Your task to perform on an android device: Add energizer triple a to the cart on walmart.com, then select checkout. Image 0: 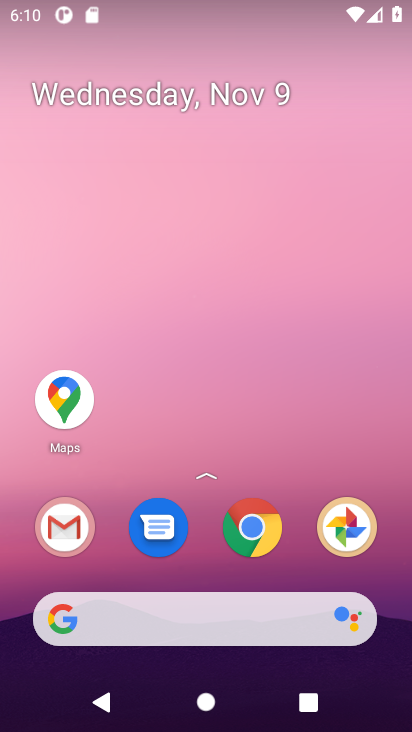
Step 0: drag from (220, 455) to (231, 46)
Your task to perform on an android device: Add energizer triple a to the cart on walmart.com, then select checkout. Image 1: 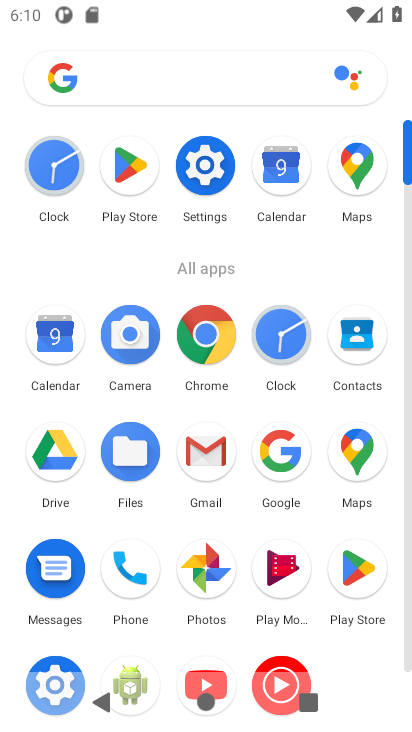
Step 1: click (200, 324)
Your task to perform on an android device: Add energizer triple a to the cart on walmart.com, then select checkout. Image 2: 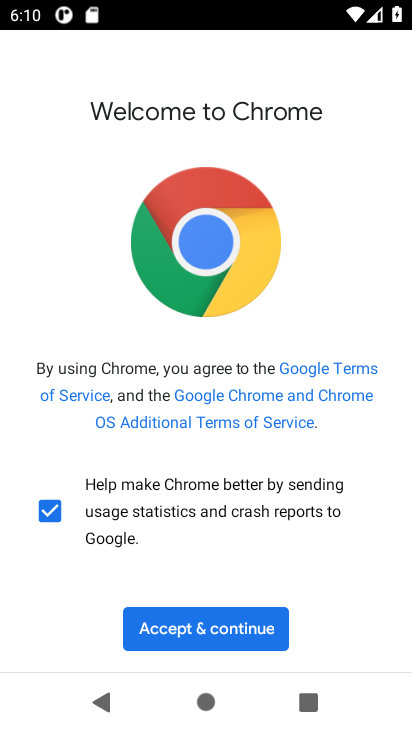
Step 2: click (220, 626)
Your task to perform on an android device: Add energizer triple a to the cart on walmart.com, then select checkout. Image 3: 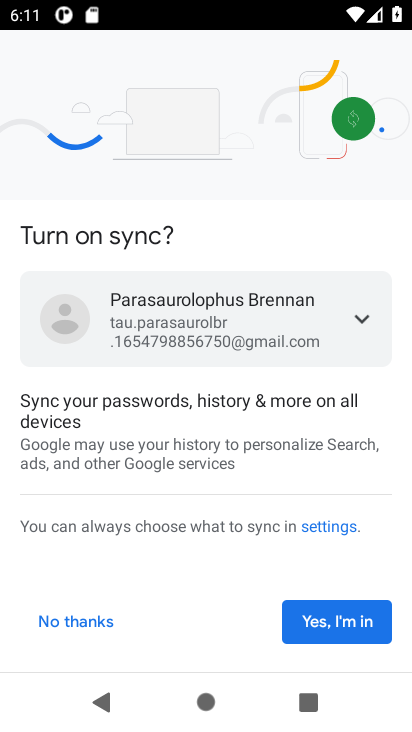
Step 3: click (346, 624)
Your task to perform on an android device: Add energizer triple a to the cart on walmart.com, then select checkout. Image 4: 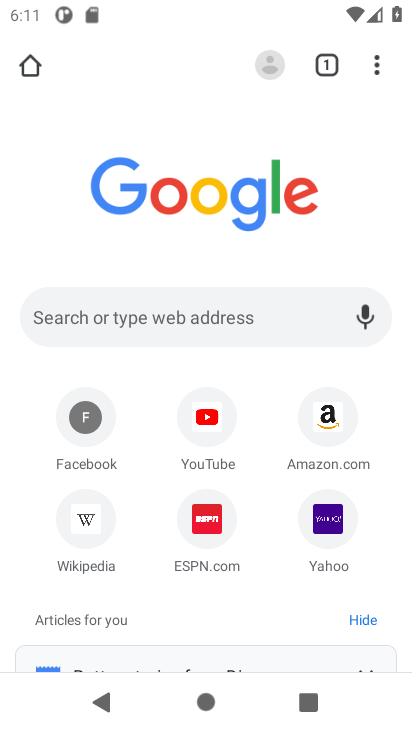
Step 4: click (122, 317)
Your task to perform on an android device: Add energizer triple a to the cart on walmart.com, then select checkout. Image 5: 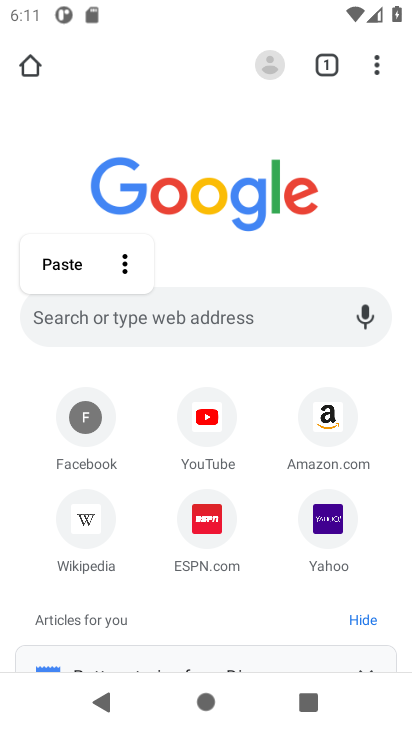
Step 5: type "walmart"
Your task to perform on an android device: Add energizer triple a to the cart on walmart.com, then select checkout. Image 6: 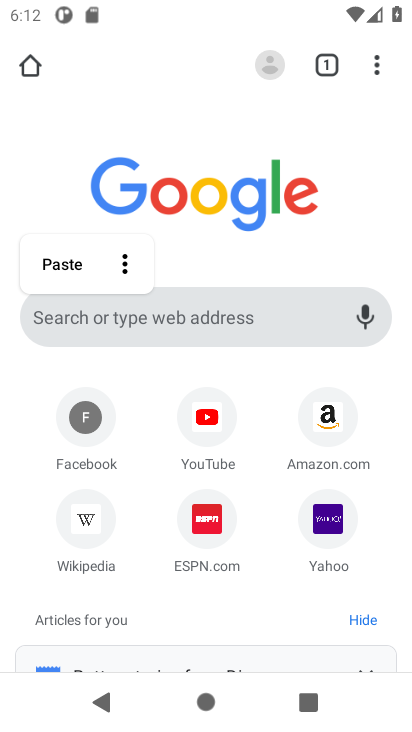
Step 6: click (105, 317)
Your task to perform on an android device: Add energizer triple a to the cart on walmart.com, then select checkout. Image 7: 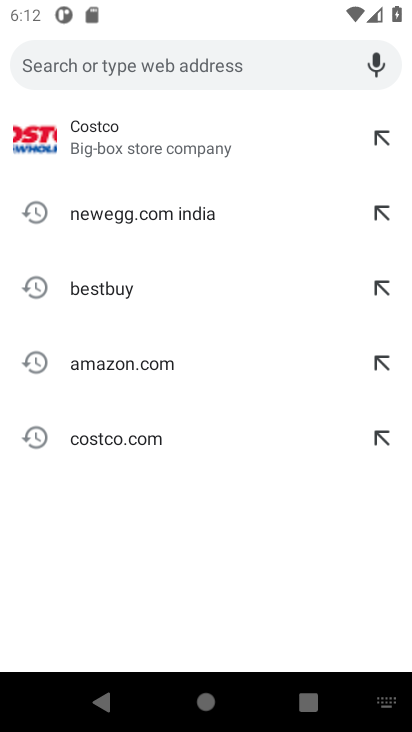
Step 7: type "walmart"
Your task to perform on an android device: Add energizer triple a to the cart on walmart.com, then select checkout. Image 8: 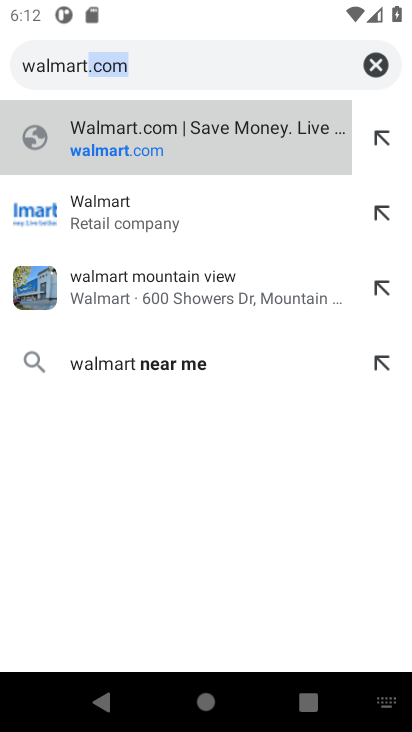
Step 8: click (108, 156)
Your task to perform on an android device: Add energizer triple a to the cart on walmart.com, then select checkout. Image 9: 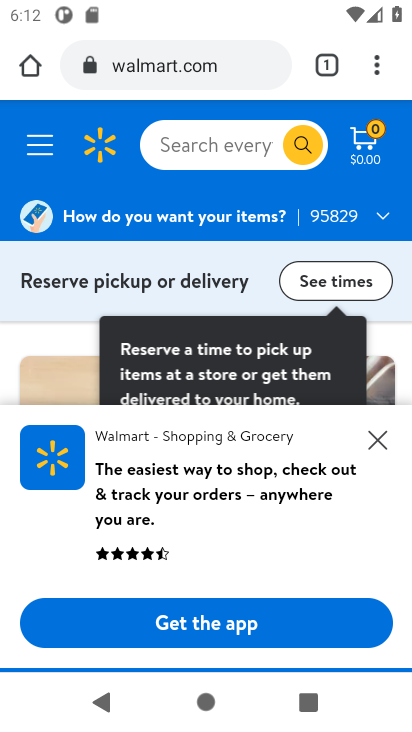
Step 9: click (374, 437)
Your task to perform on an android device: Add energizer triple a to the cart on walmart.com, then select checkout. Image 10: 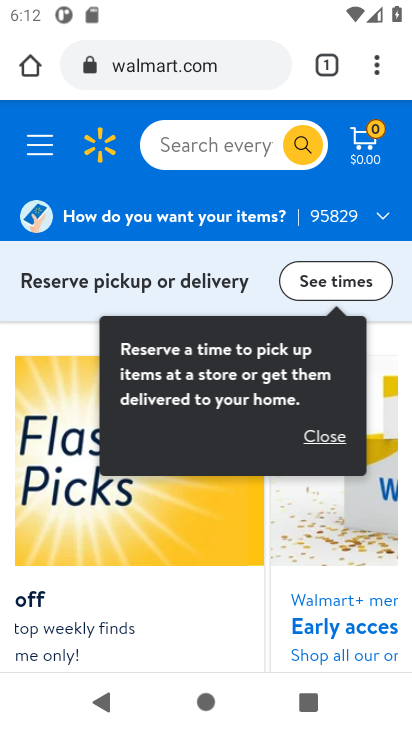
Step 10: click (197, 142)
Your task to perform on an android device: Add energizer triple a to the cart on walmart.com, then select checkout. Image 11: 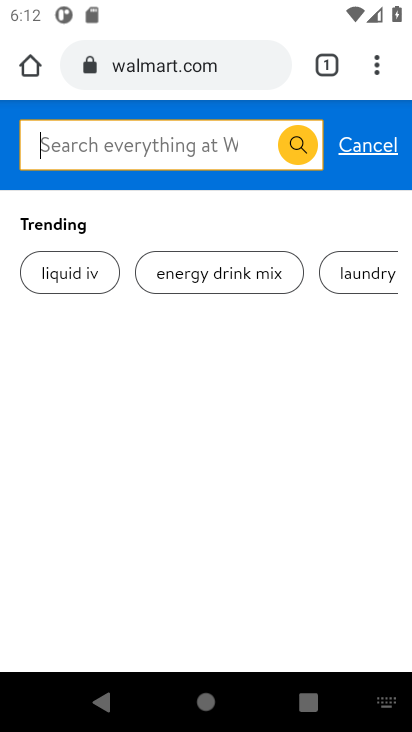
Step 11: type "energizer triple a"
Your task to perform on an android device: Add energizer triple a to the cart on walmart.com, then select checkout. Image 12: 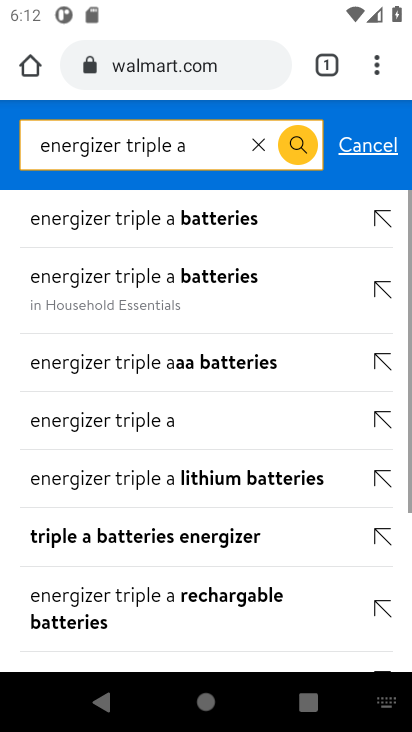
Step 12: click (134, 271)
Your task to perform on an android device: Add energizer triple a to the cart on walmart.com, then select checkout. Image 13: 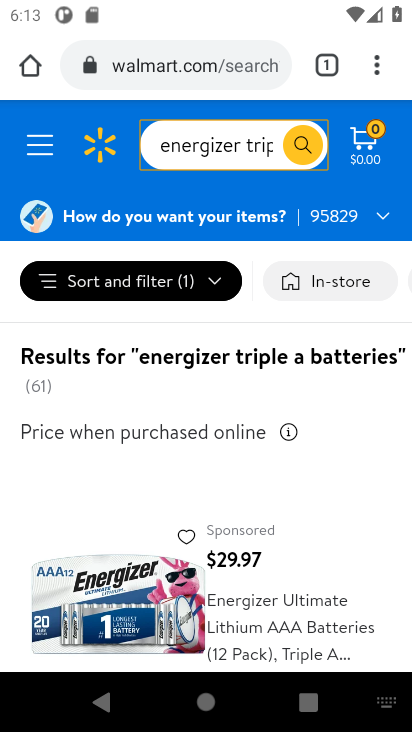
Step 13: click (249, 605)
Your task to perform on an android device: Add energizer triple a to the cart on walmart.com, then select checkout. Image 14: 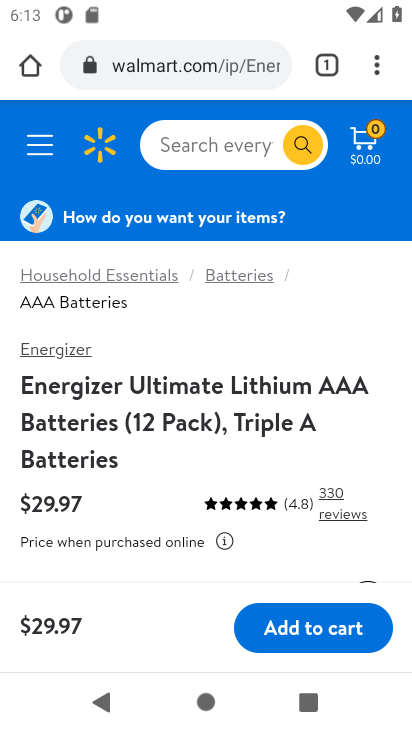
Step 14: click (314, 622)
Your task to perform on an android device: Add energizer triple a to the cart on walmart.com, then select checkout. Image 15: 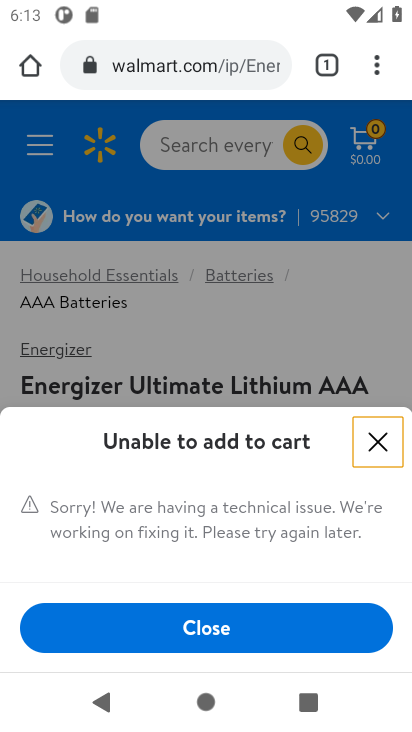
Step 15: click (216, 636)
Your task to perform on an android device: Add energizer triple a to the cart on walmart.com, then select checkout. Image 16: 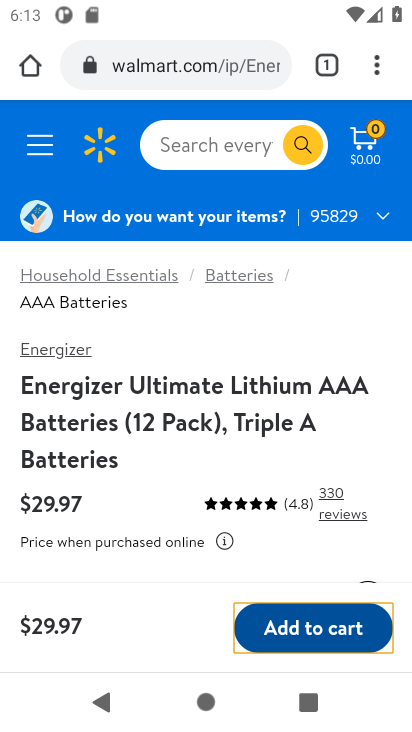
Step 16: press back button
Your task to perform on an android device: Add energizer triple a to the cart on walmart.com, then select checkout. Image 17: 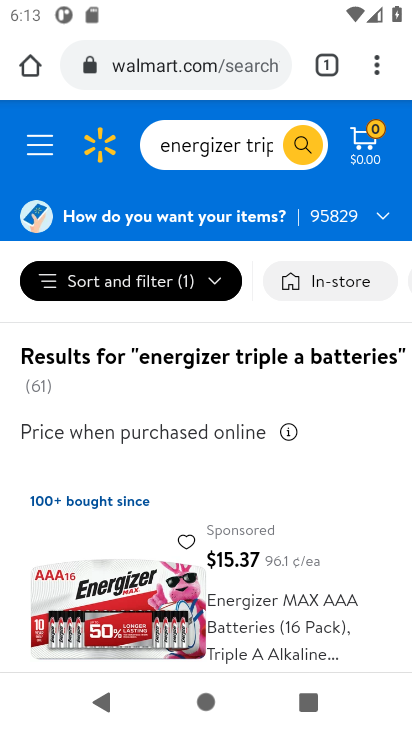
Step 17: drag from (209, 577) to (203, 173)
Your task to perform on an android device: Add energizer triple a to the cart on walmart.com, then select checkout. Image 18: 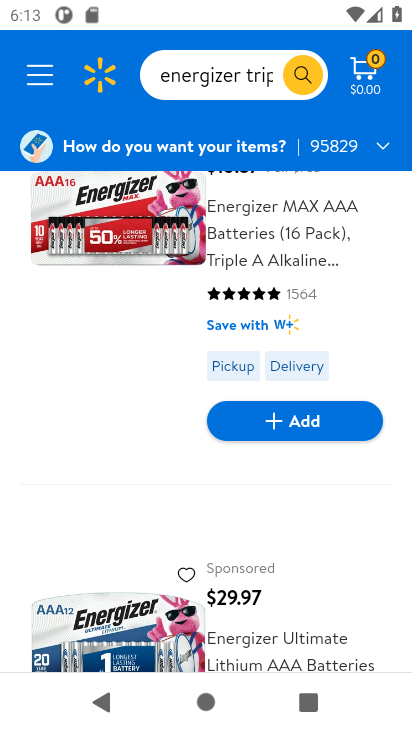
Step 18: drag from (266, 634) to (273, 251)
Your task to perform on an android device: Add energizer triple a to the cart on walmart.com, then select checkout. Image 19: 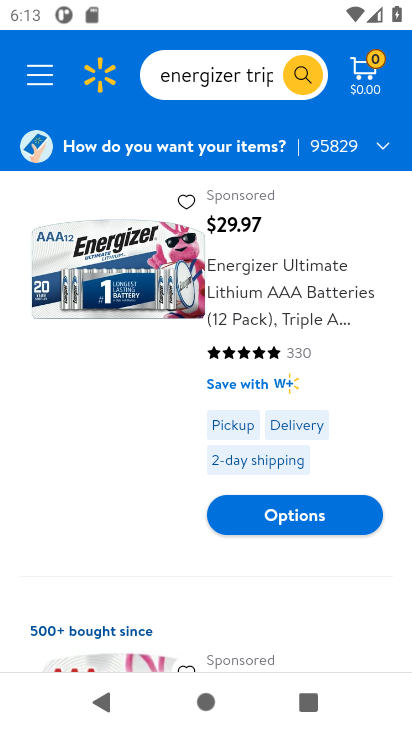
Step 19: click (292, 515)
Your task to perform on an android device: Add energizer triple a to the cart on walmart.com, then select checkout. Image 20: 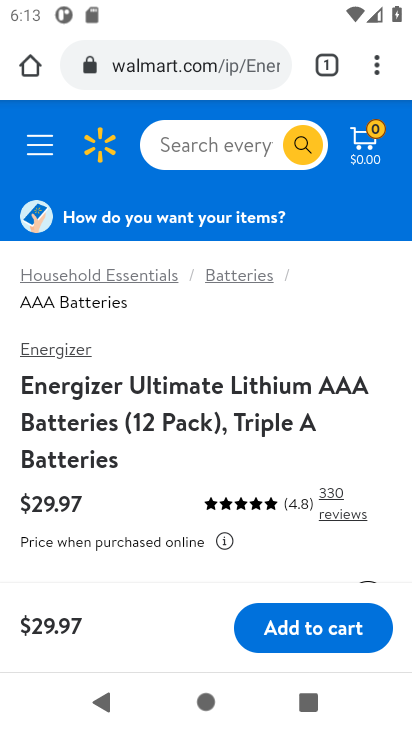
Step 20: click (323, 635)
Your task to perform on an android device: Add energizer triple a to the cart on walmart.com, then select checkout. Image 21: 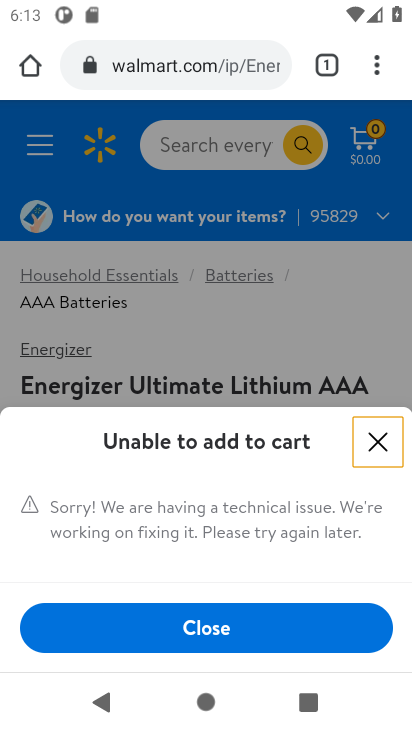
Step 21: task complete